Your task to perform on an android device: Go to Amazon Image 0: 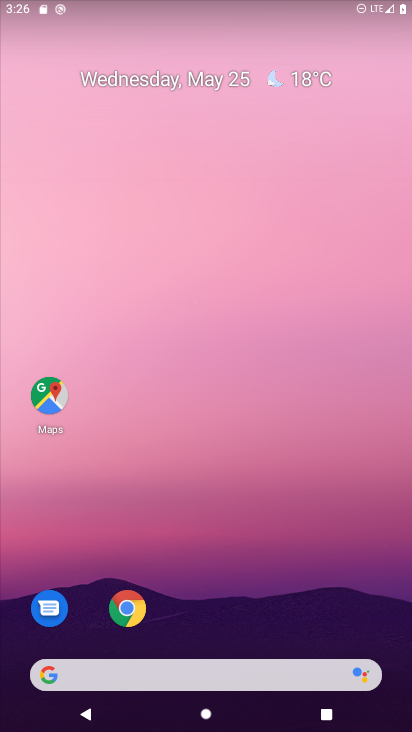
Step 0: click (123, 607)
Your task to perform on an android device: Go to Amazon Image 1: 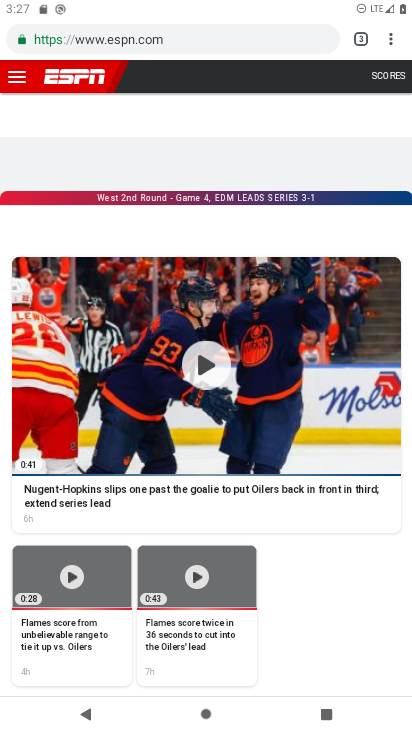
Step 1: click (177, 33)
Your task to perform on an android device: Go to Amazon Image 2: 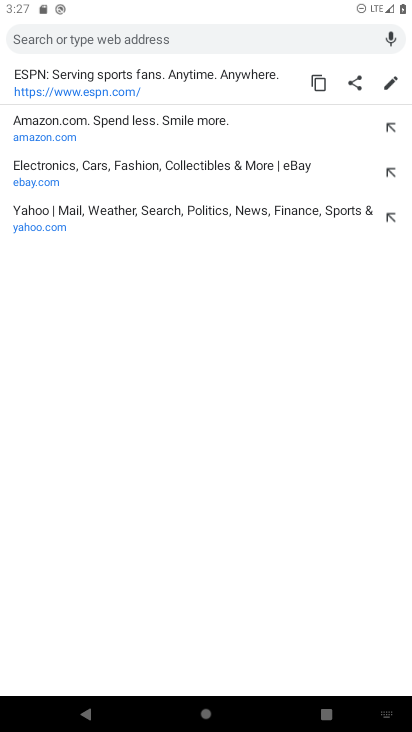
Step 2: type "amazon"
Your task to perform on an android device: Go to Amazon Image 3: 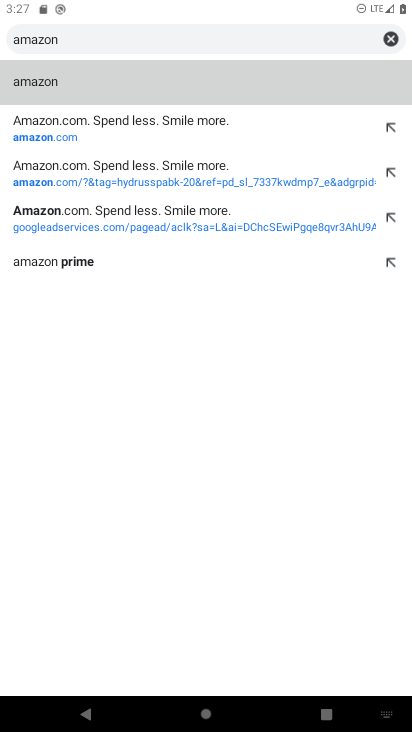
Step 3: click (56, 80)
Your task to perform on an android device: Go to Amazon Image 4: 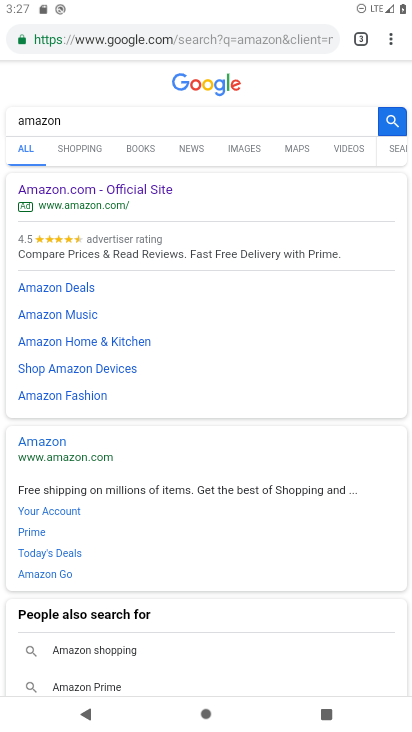
Step 4: click (49, 447)
Your task to perform on an android device: Go to Amazon Image 5: 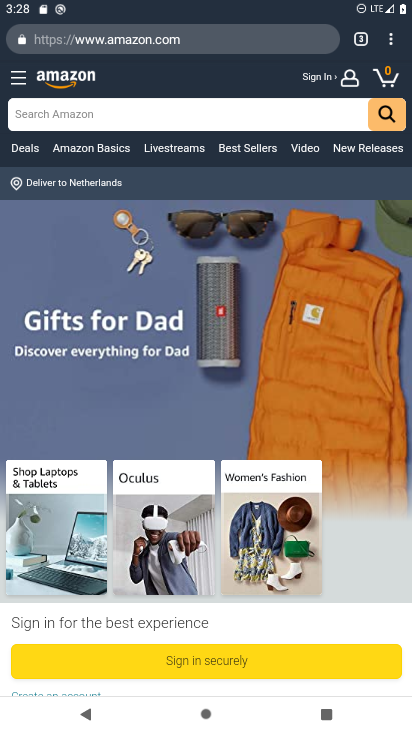
Step 5: task complete